Your task to perform on an android device: Set the phone to "Do not disturb". Image 0: 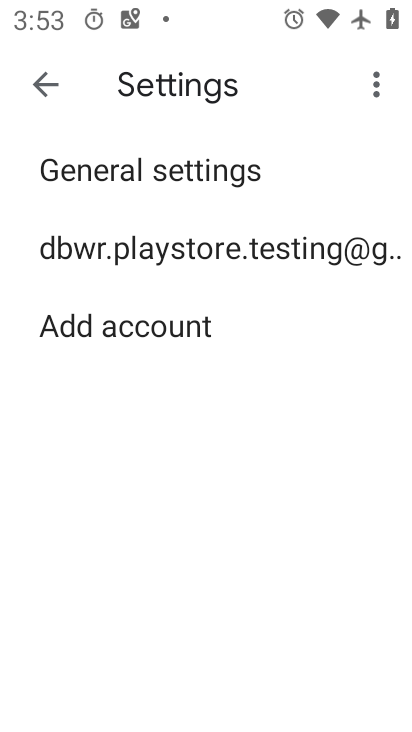
Step 0: press home button
Your task to perform on an android device: Set the phone to "Do not disturb". Image 1: 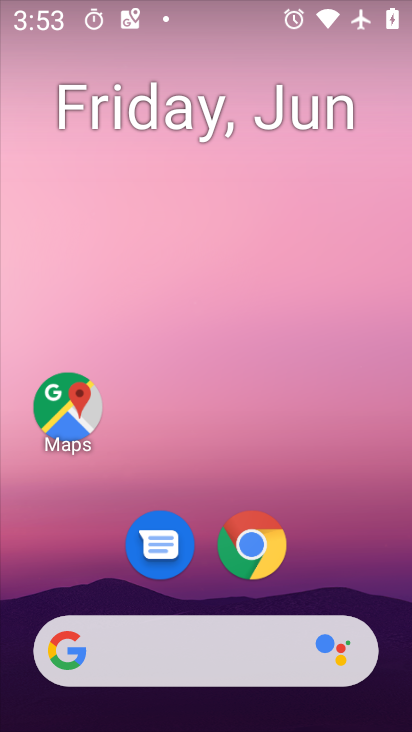
Step 1: drag from (359, 576) to (395, 77)
Your task to perform on an android device: Set the phone to "Do not disturb". Image 2: 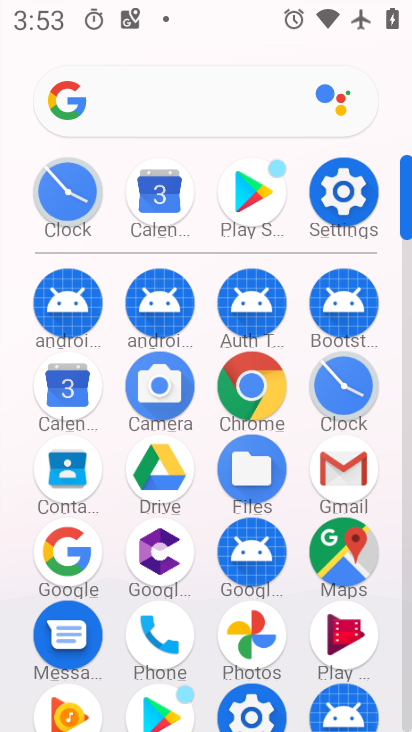
Step 2: click (337, 193)
Your task to perform on an android device: Set the phone to "Do not disturb". Image 3: 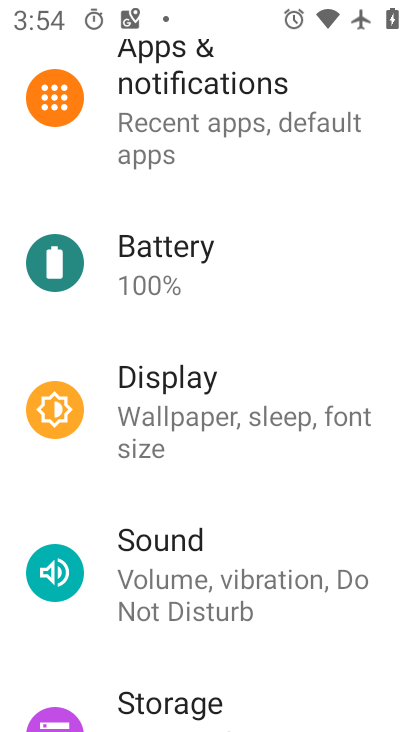
Step 3: click (275, 558)
Your task to perform on an android device: Set the phone to "Do not disturb". Image 4: 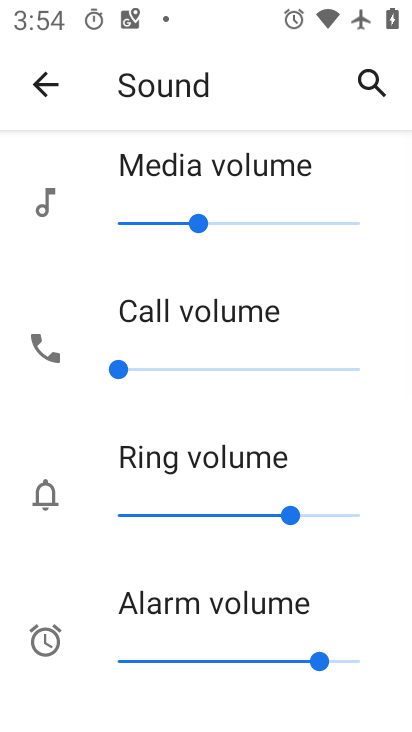
Step 4: drag from (232, 373) to (230, 155)
Your task to perform on an android device: Set the phone to "Do not disturb". Image 5: 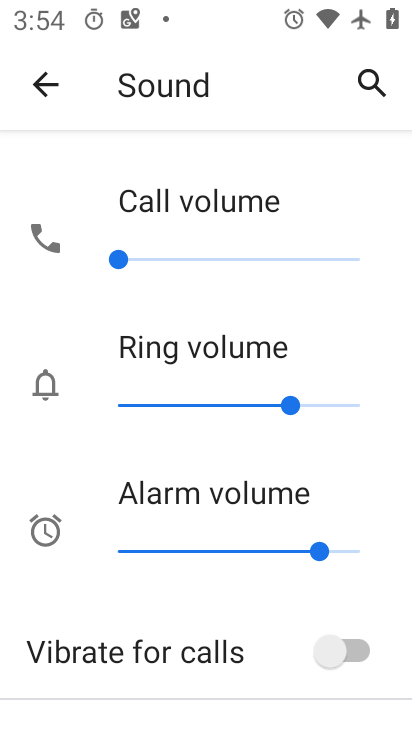
Step 5: drag from (174, 633) to (175, 173)
Your task to perform on an android device: Set the phone to "Do not disturb". Image 6: 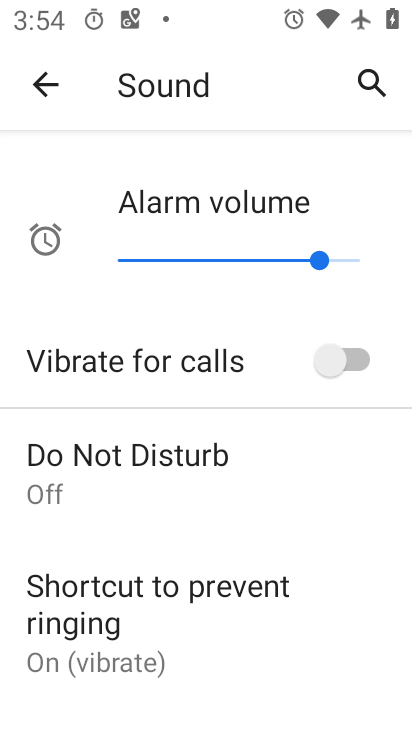
Step 6: click (168, 493)
Your task to perform on an android device: Set the phone to "Do not disturb". Image 7: 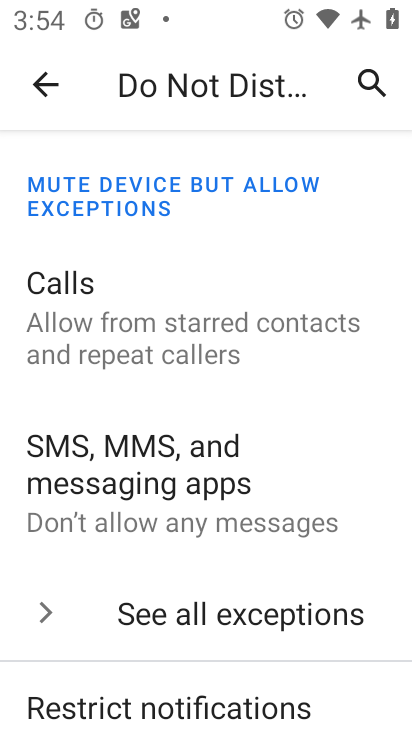
Step 7: drag from (180, 658) to (189, 176)
Your task to perform on an android device: Set the phone to "Do not disturb". Image 8: 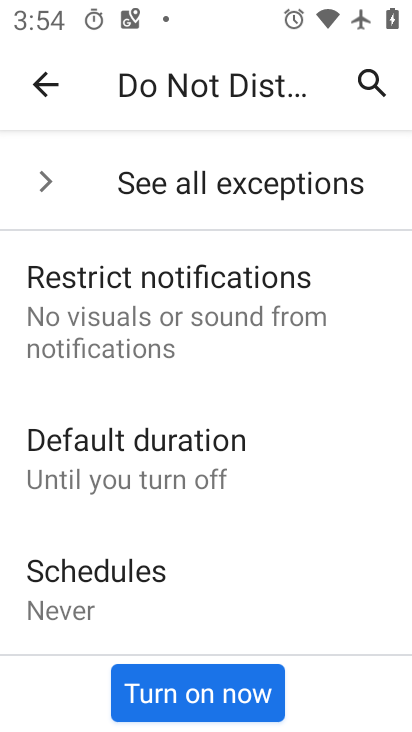
Step 8: click (200, 683)
Your task to perform on an android device: Set the phone to "Do not disturb". Image 9: 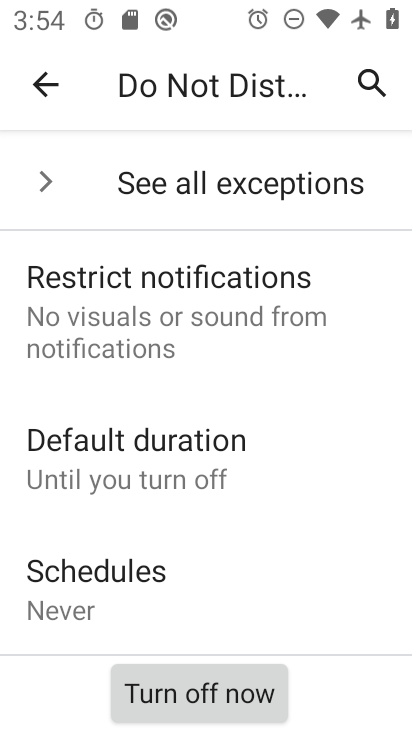
Step 9: task complete